Your task to perform on an android device: uninstall "Google News" Image 0: 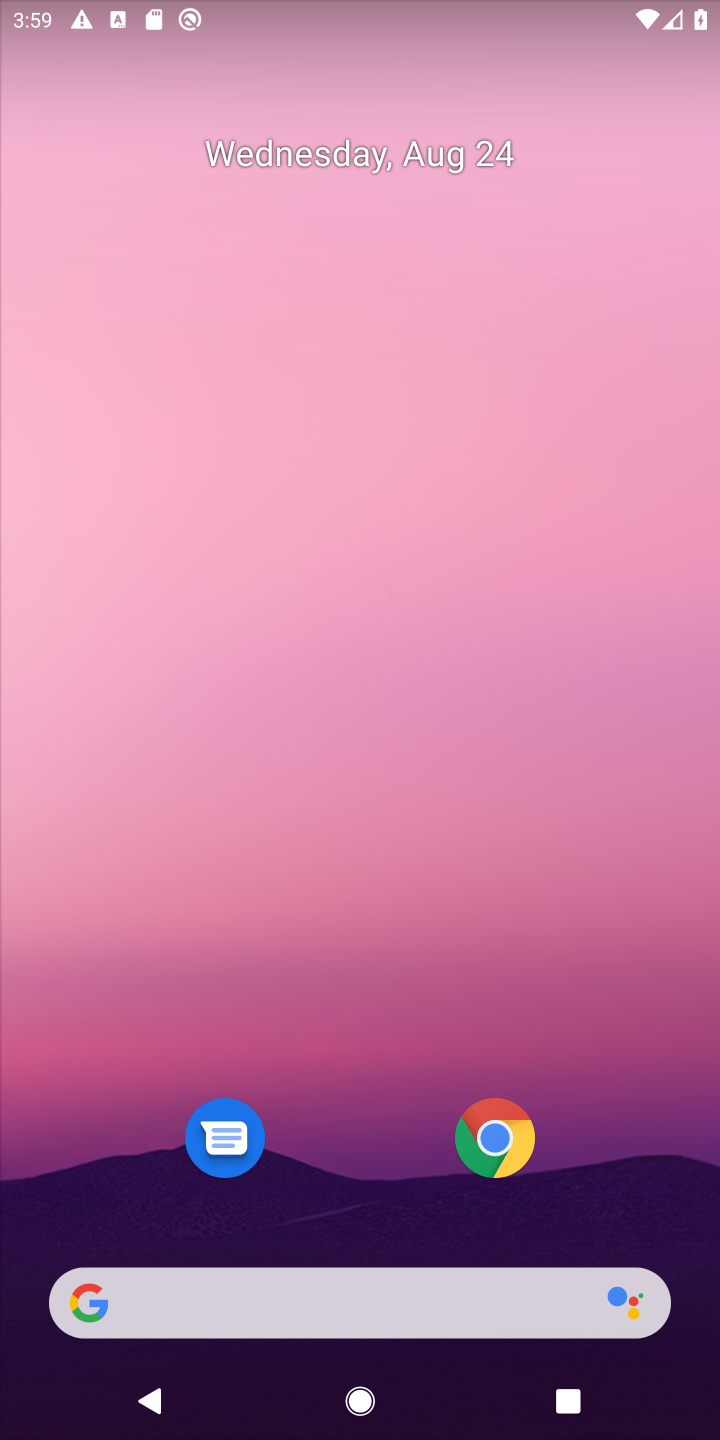
Step 0: press home button
Your task to perform on an android device: uninstall "Google News" Image 1: 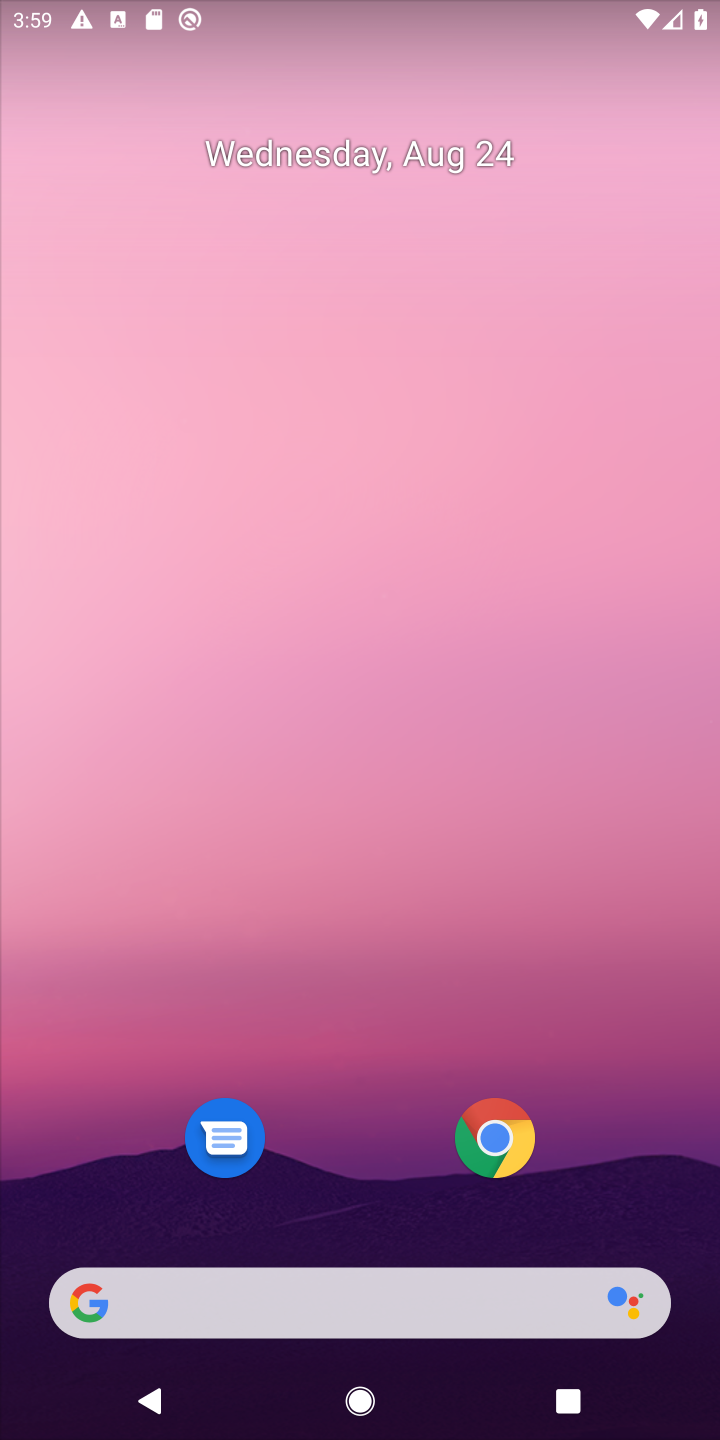
Step 1: drag from (372, 665) to (368, 19)
Your task to perform on an android device: uninstall "Google News" Image 2: 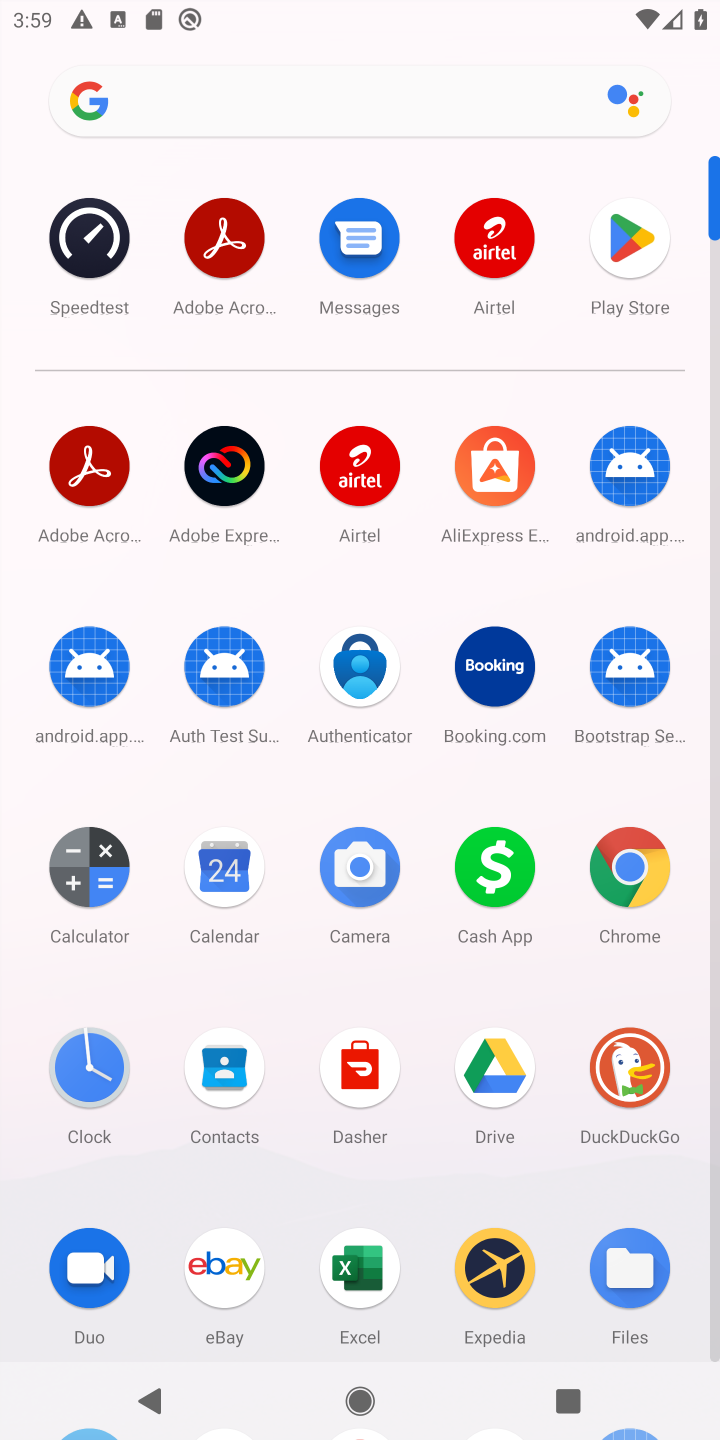
Step 2: click (631, 241)
Your task to perform on an android device: uninstall "Google News" Image 3: 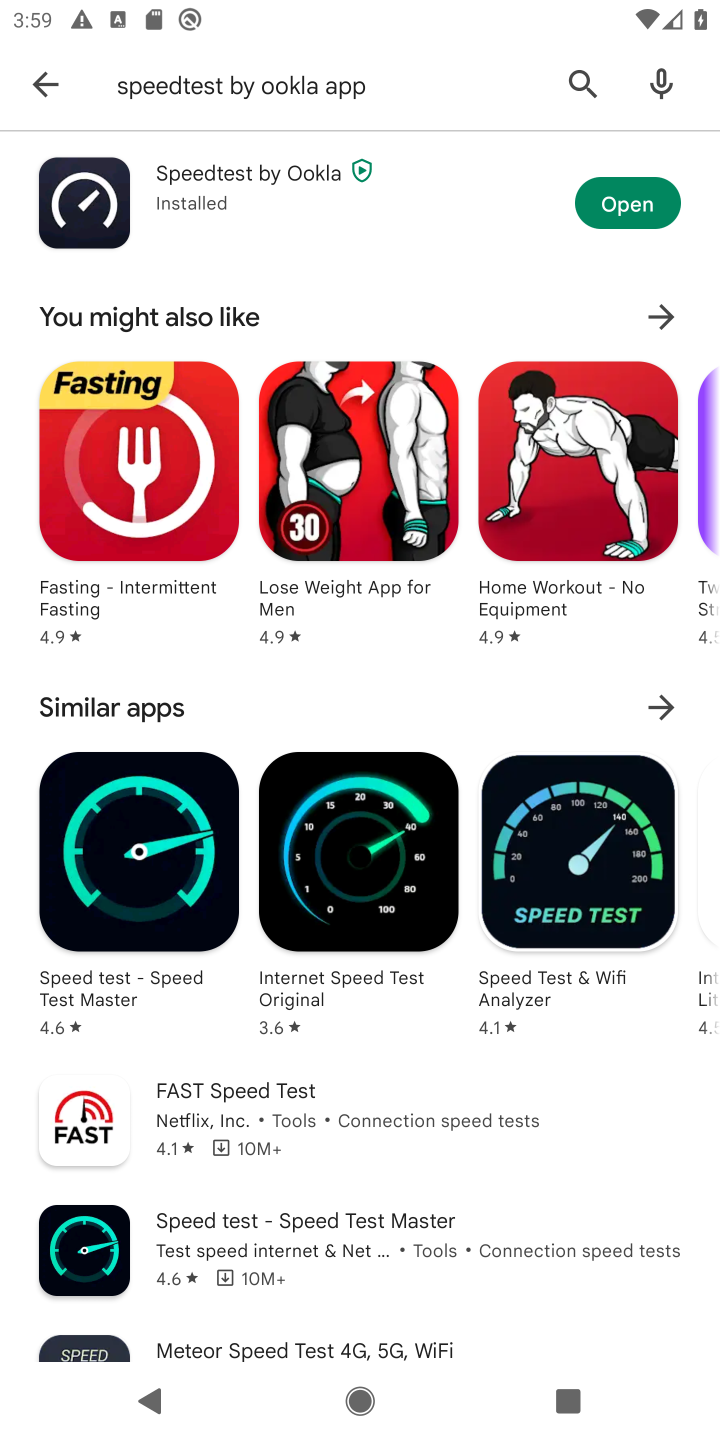
Step 3: click (579, 71)
Your task to perform on an android device: uninstall "Google News" Image 4: 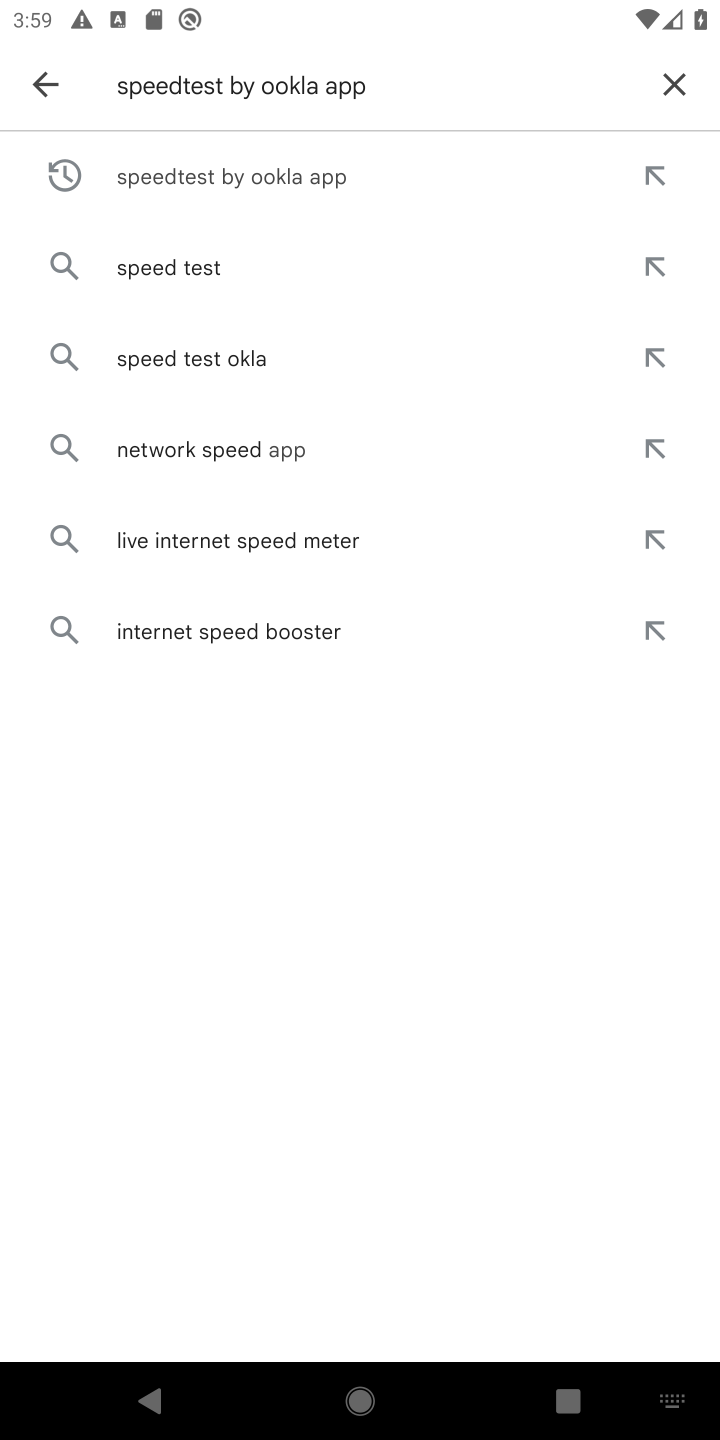
Step 4: click (669, 79)
Your task to perform on an android device: uninstall "Google News" Image 5: 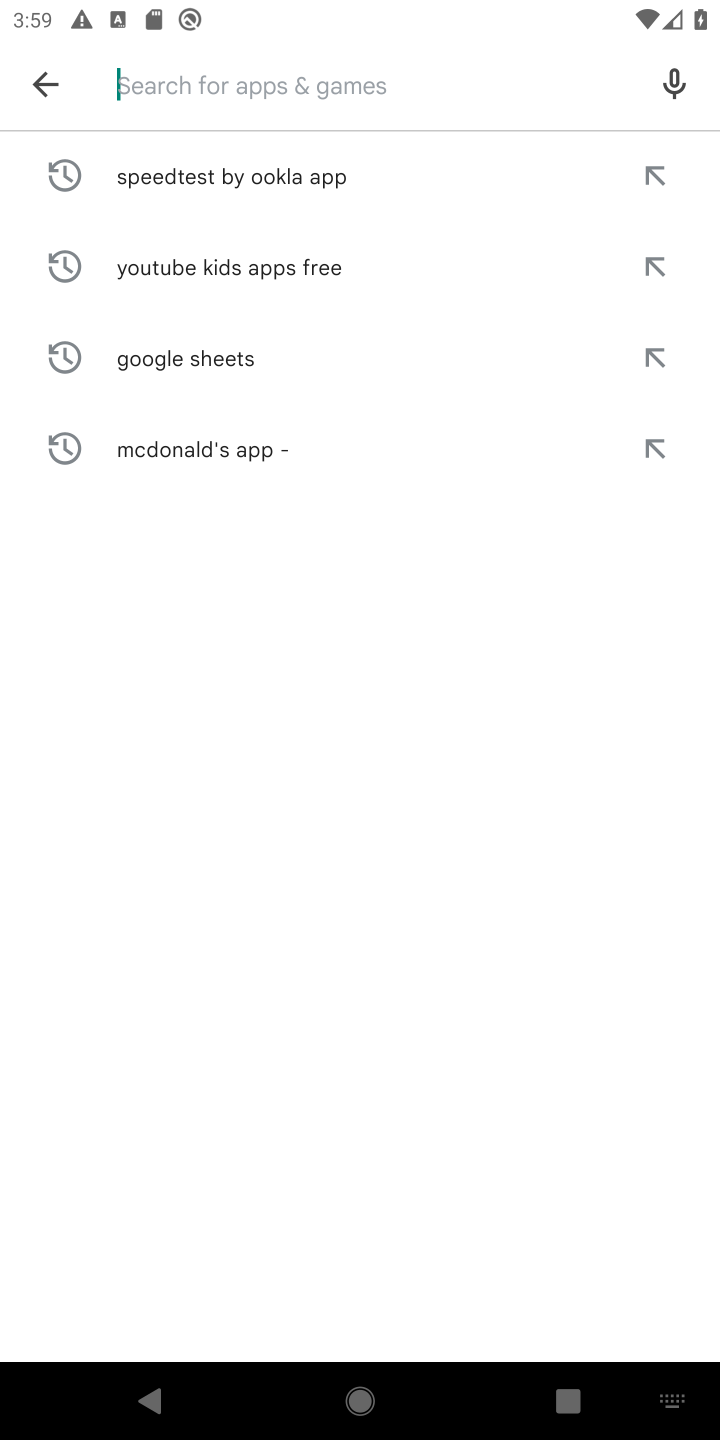
Step 5: type "Google News"
Your task to perform on an android device: uninstall "Google News" Image 6: 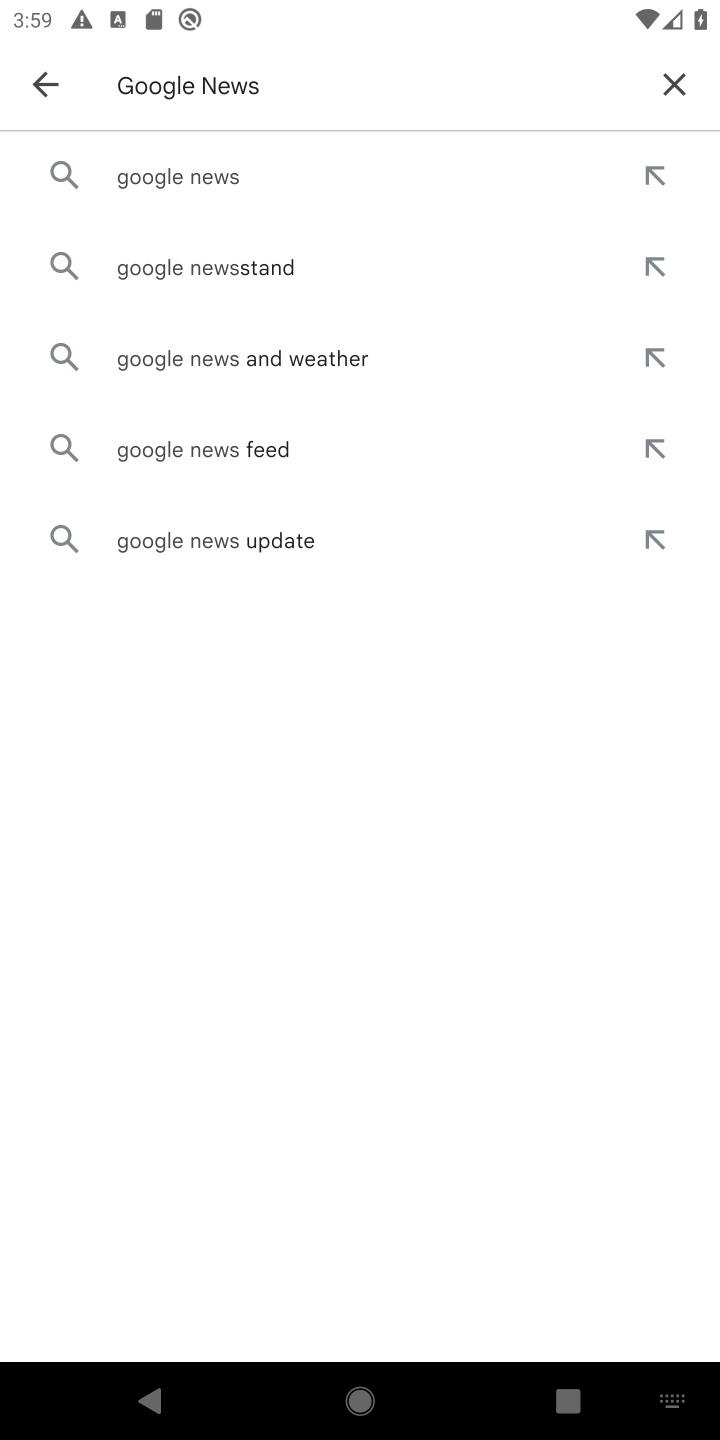
Step 6: click (123, 180)
Your task to perform on an android device: uninstall "Google News" Image 7: 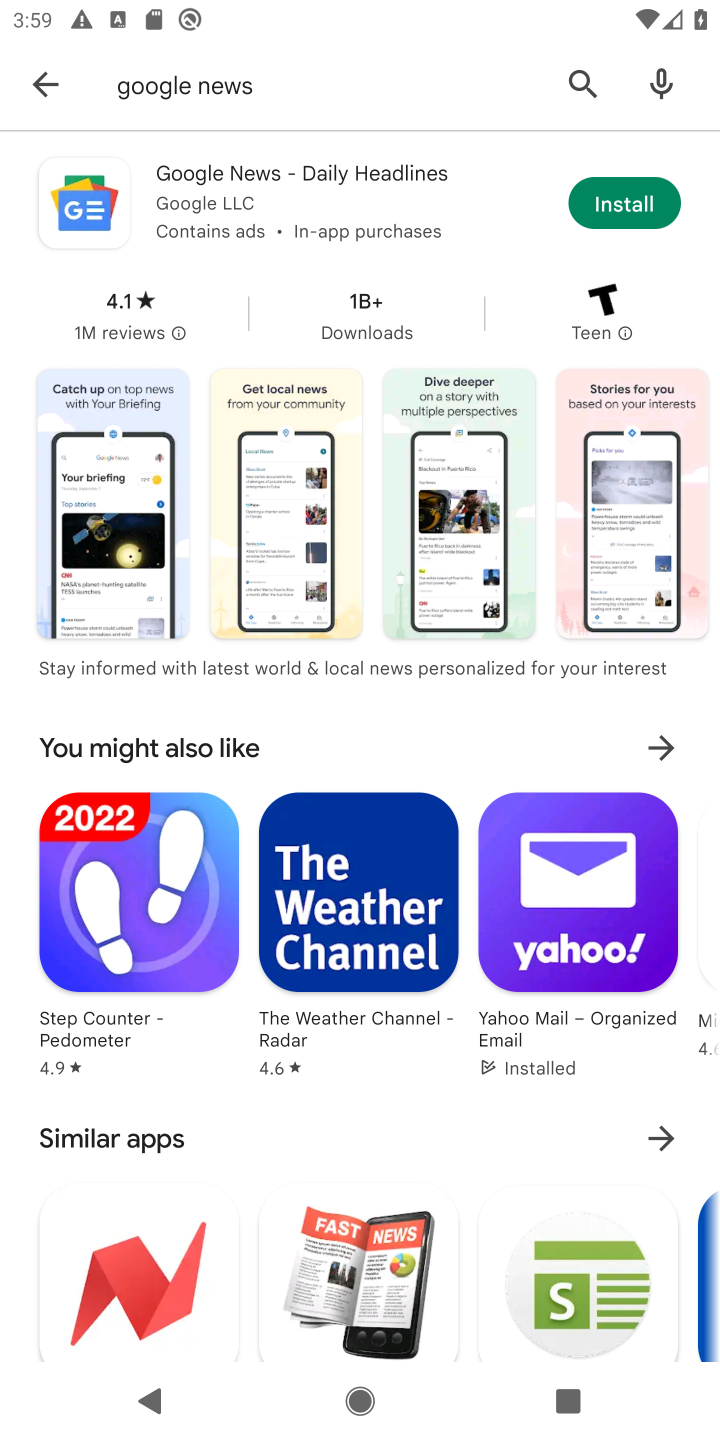
Step 7: task complete